Your task to perform on an android device: turn on translation in the chrome app Image 0: 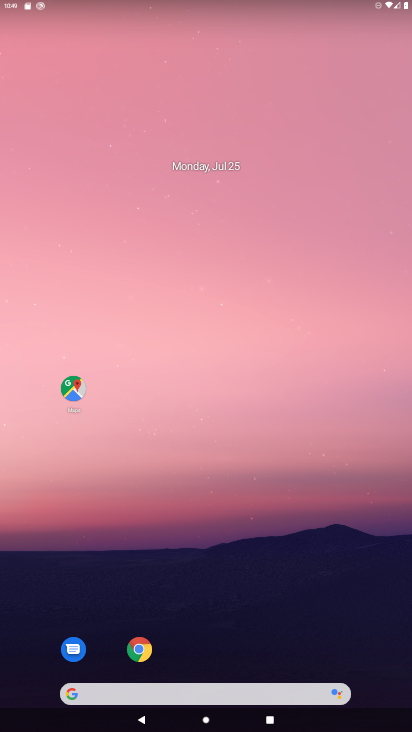
Step 0: click (140, 650)
Your task to perform on an android device: turn on translation in the chrome app Image 1: 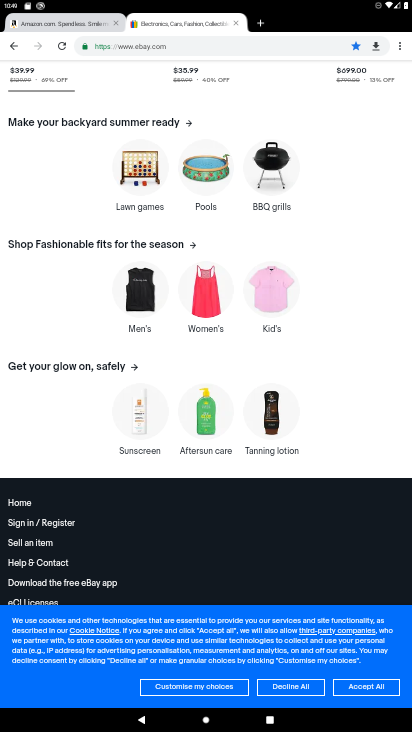
Step 1: click (398, 49)
Your task to perform on an android device: turn on translation in the chrome app Image 2: 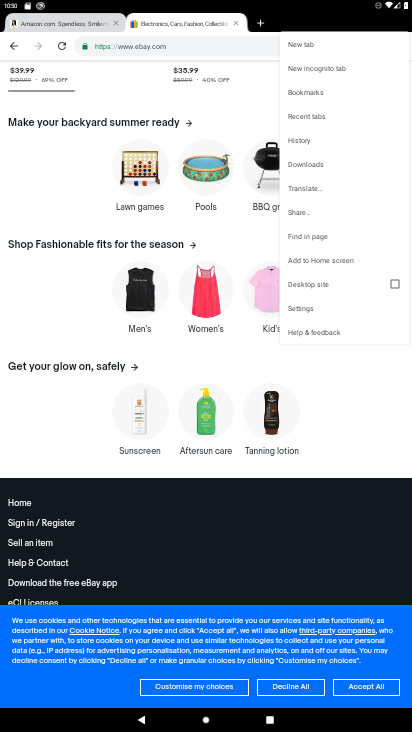
Step 2: click (302, 310)
Your task to perform on an android device: turn on translation in the chrome app Image 3: 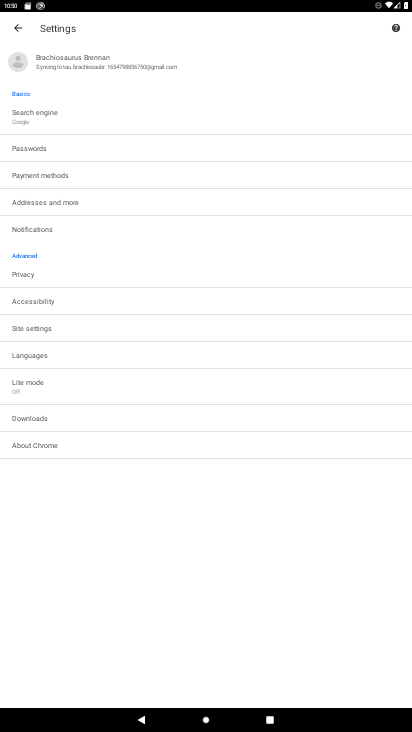
Step 3: click (30, 353)
Your task to perform on an android device: turn on translation in the chrome app Image 4: 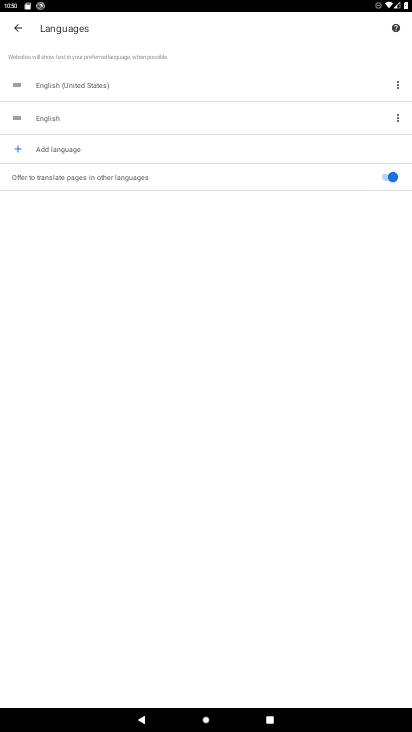
Step 4: task complete